Your task to perform on an android device: Toggle the flashlight Image 0: 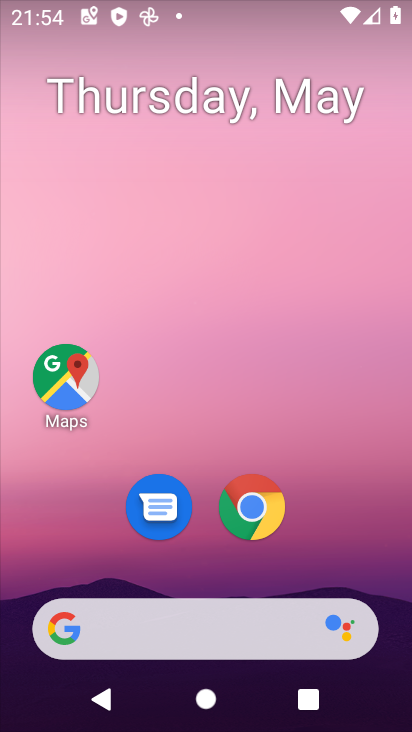
Step 0: drag from (285, 663) to (364, 141)
Your task to perform on an android device: Toggle the flashlight Image 1: 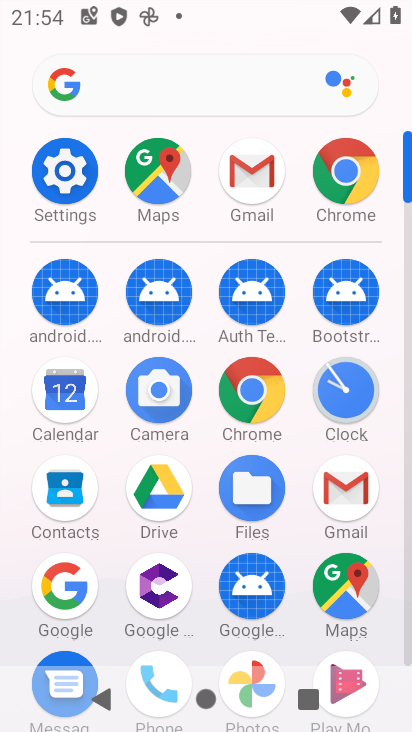
Step 1: click (79, 181)
Your task to perform on an android device: Toggle the flashlight Image 2: 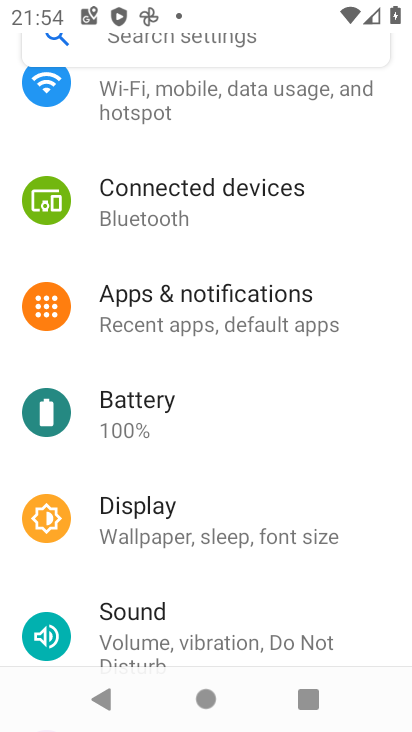
Step 2: click (77, 182)
Your task to perform on an android device: Toggle the flashlight Image 3: 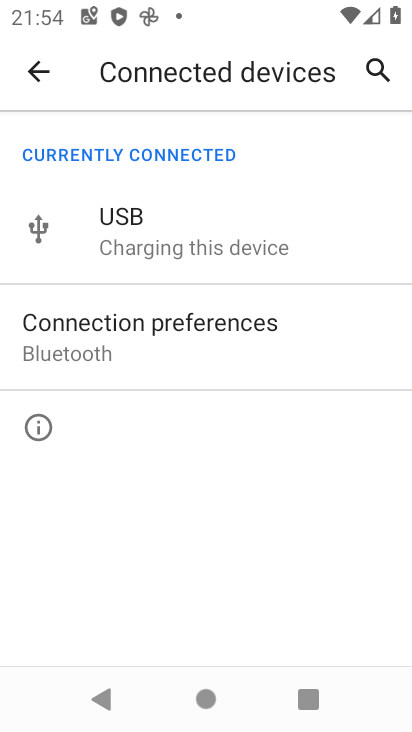
Step 3: click (39, 82)
Your task to perform on an android device: Toggle the flashlight Image 4: 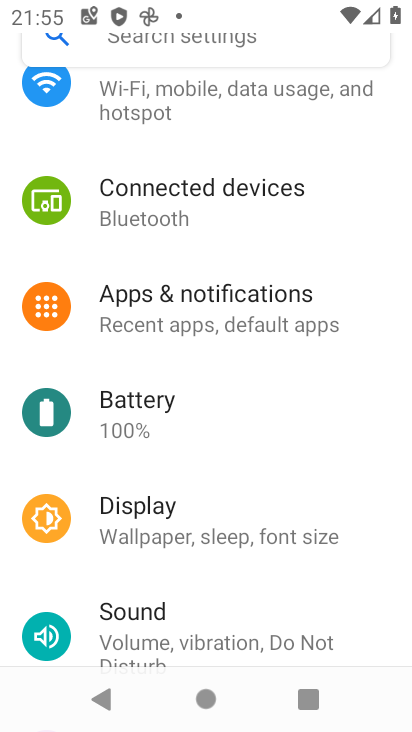
Step 4: click (191, 47)
Your task to perform on an android device: Toggle the flashlight Image 5: 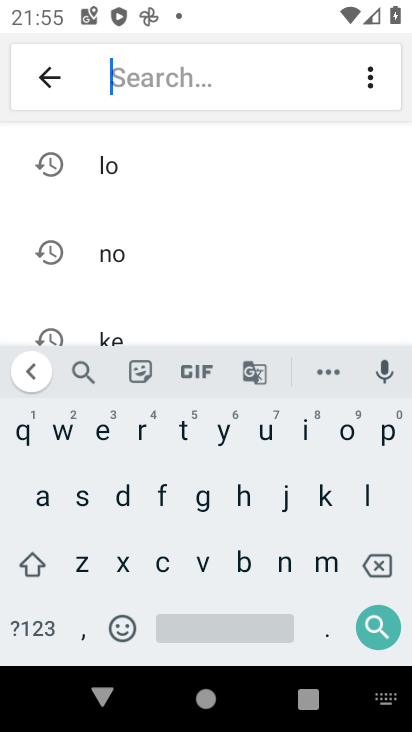
Step 5: click (162, 499)
Your task to perform on an android device: Toggle the flashlight Image 6: 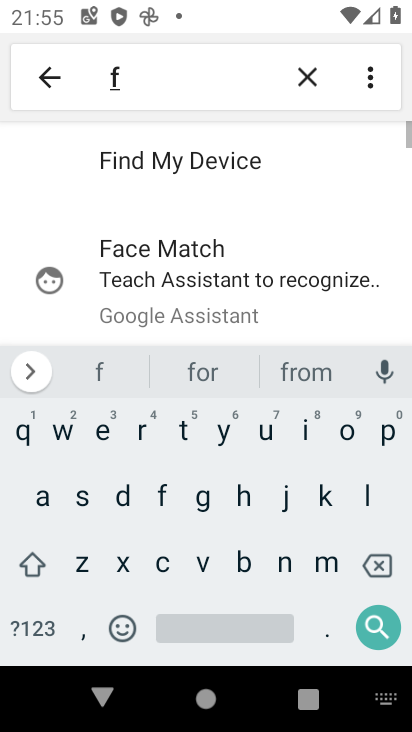
Step 6: click (370, 491)
Your task to perform on an android device: Toggle the flashlight Image 7: 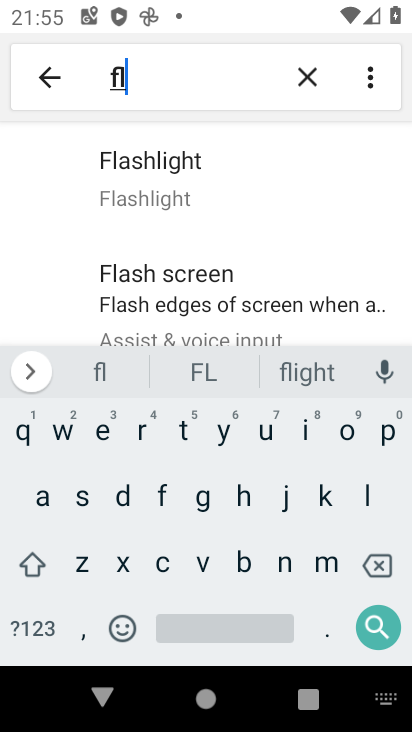
Step 7: click (165, 196)
Your task to perform on an android device: Toggle the flashlight Image 8: 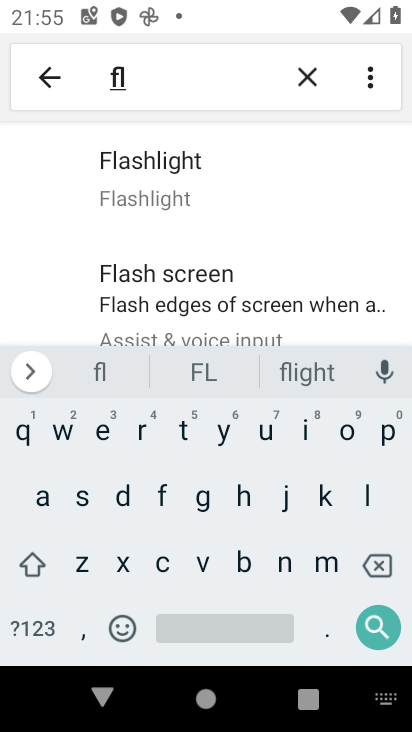
Step 8: click (165, 196)
Your task to perform on an android device: Toggle the flashlight Image 9: 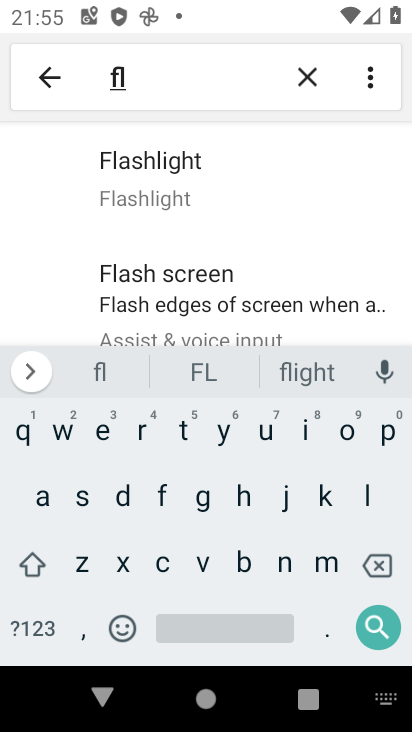
Step 9: task complete